Your task to perform on an android device: turn pop-ups on in chrome Image 0: 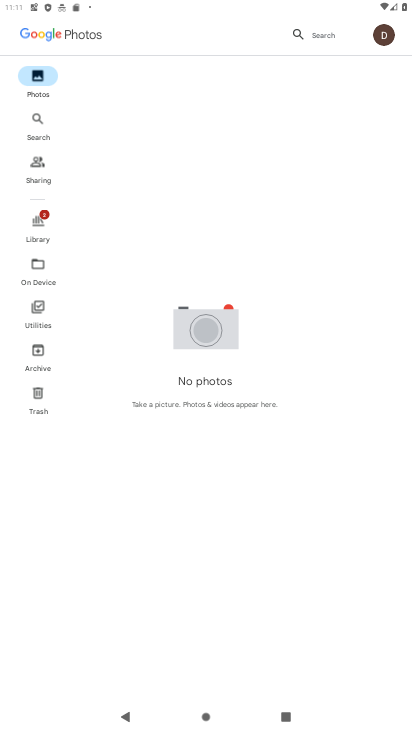
Step 0: press home button
Your task to perform on an android device: turn pop-ups on in chrome Image 1: 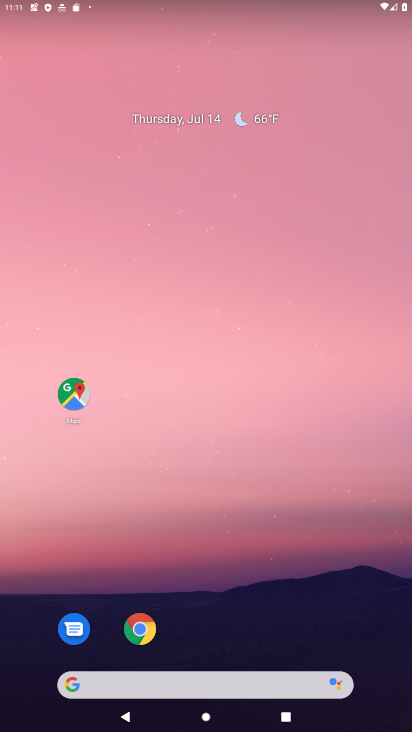
Step 1: click (149, 633)
Your task to perform on an android device: turn pop-ups on in chrome Image 2: 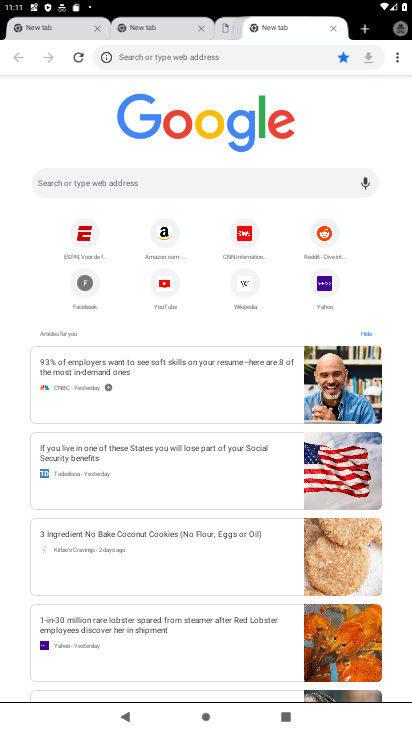
Step 2: drag from (398, 56) to (277, 268)
Your task to perform on an android device: turn pop-ups on in chrome Image 3: 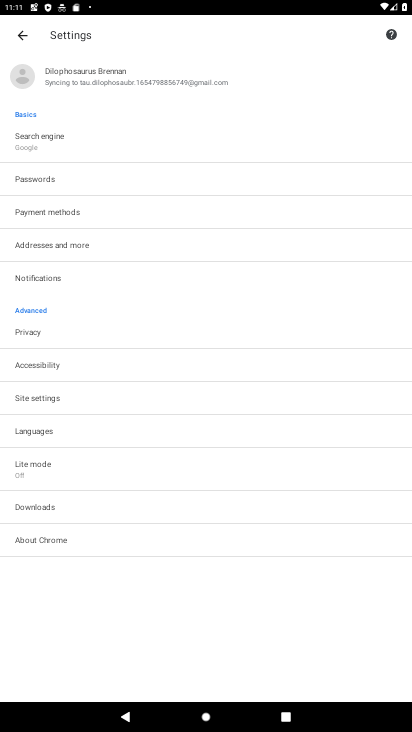
Step 3: click (44, 402)
Your task to perform on an android device: turn pop-ups on in chrome Image 4: 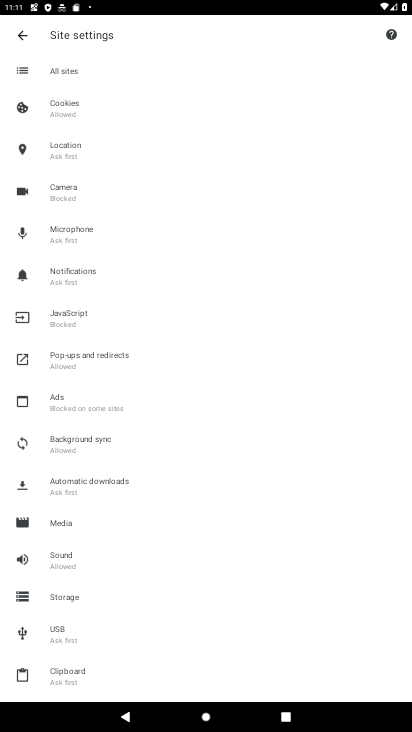
Step 4: click (68, 362)
Your task to perform on an android device: turn pop-ups on in chrome Image 5: 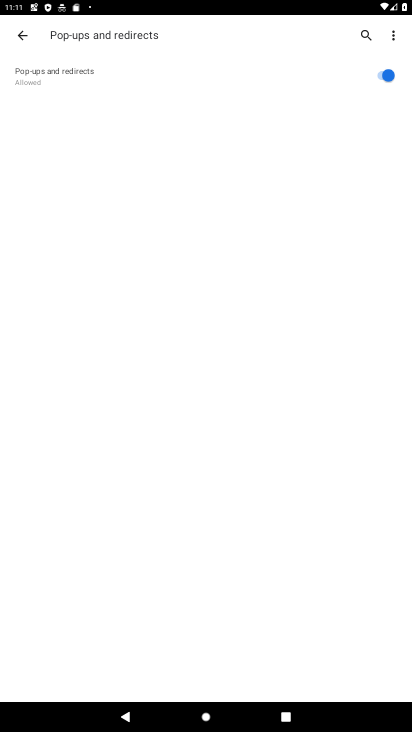
Step 5: task complete